Your task to perform on an android device: Open Google Image 0: 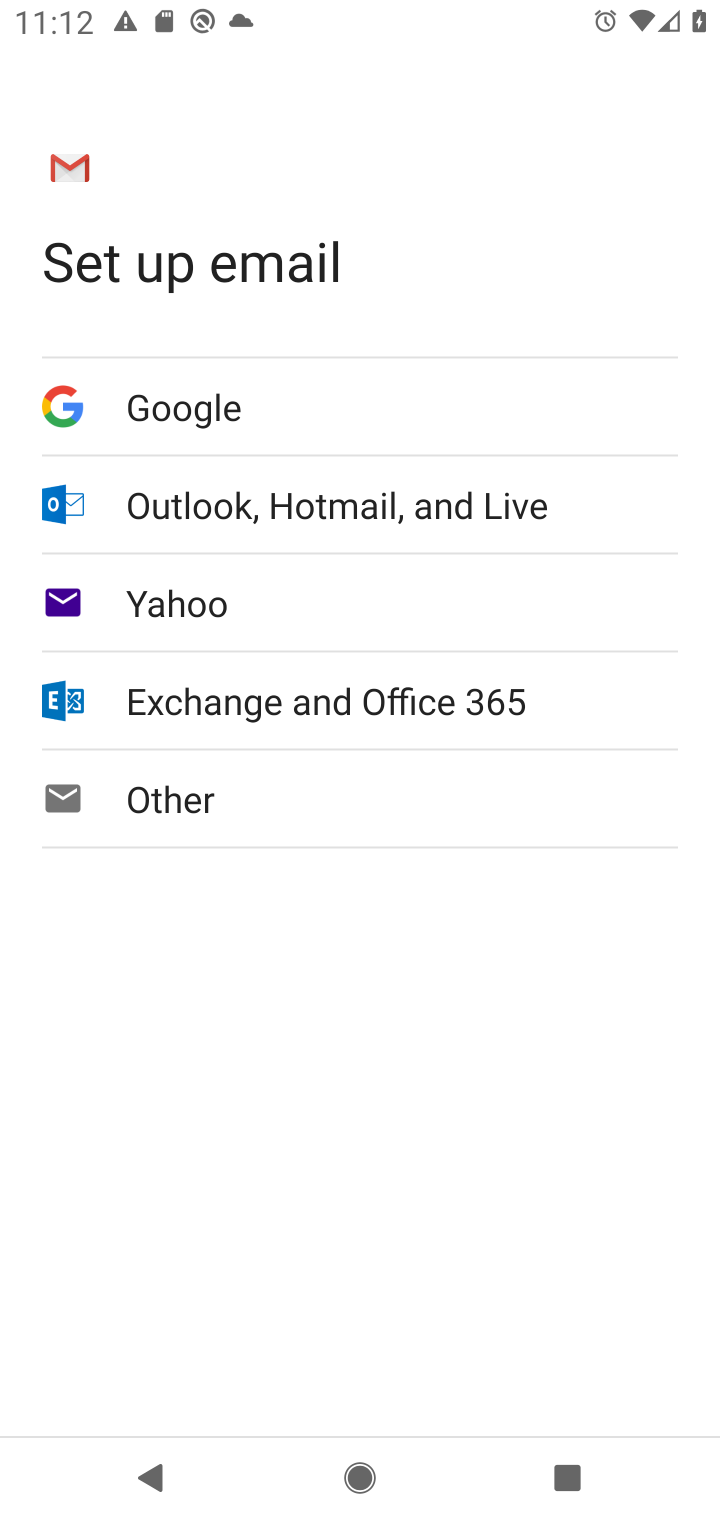
Step 0: press home button
Your task to perform on an android device: Open Google Image 1: 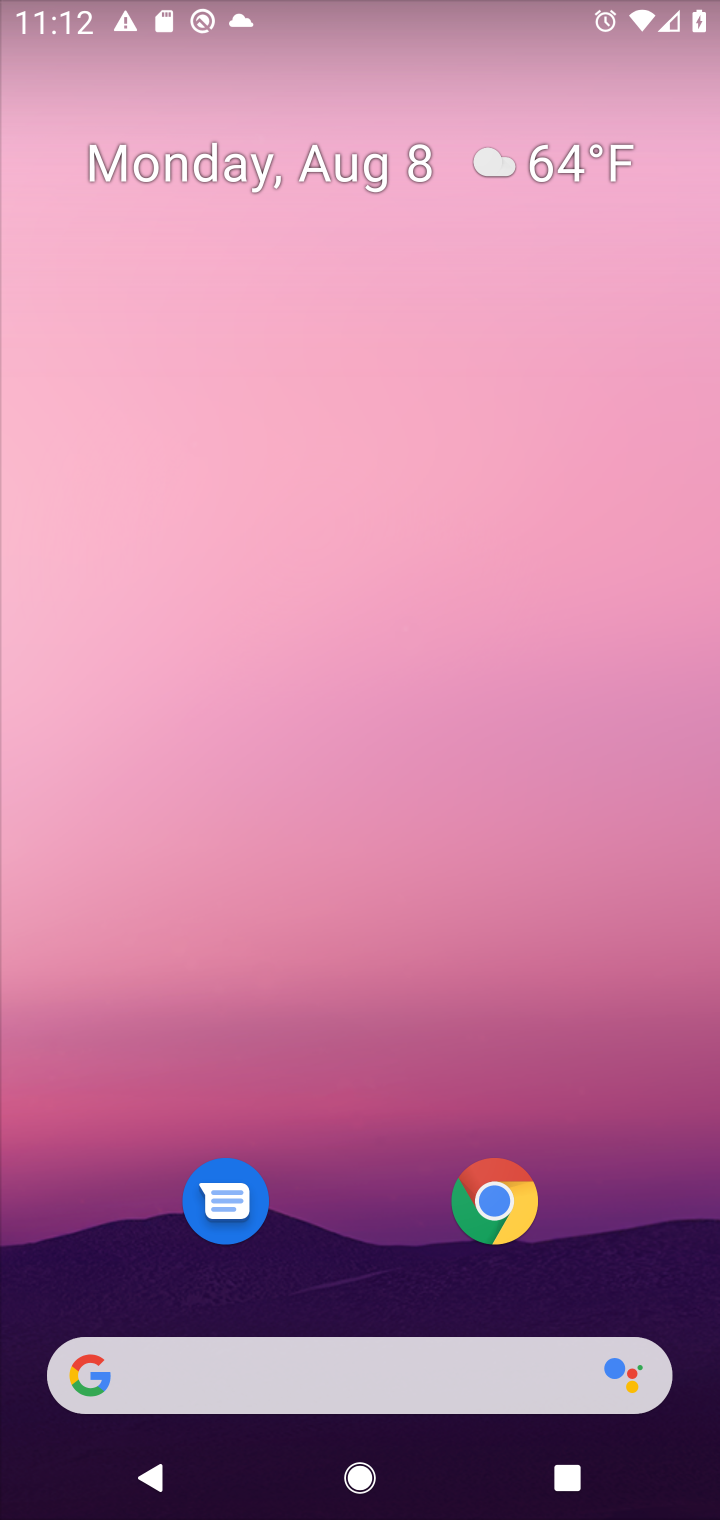
Step 1: drag from (369, 1155) to (449, 181)
Your task to perform on an android device: Open Google Image 2: 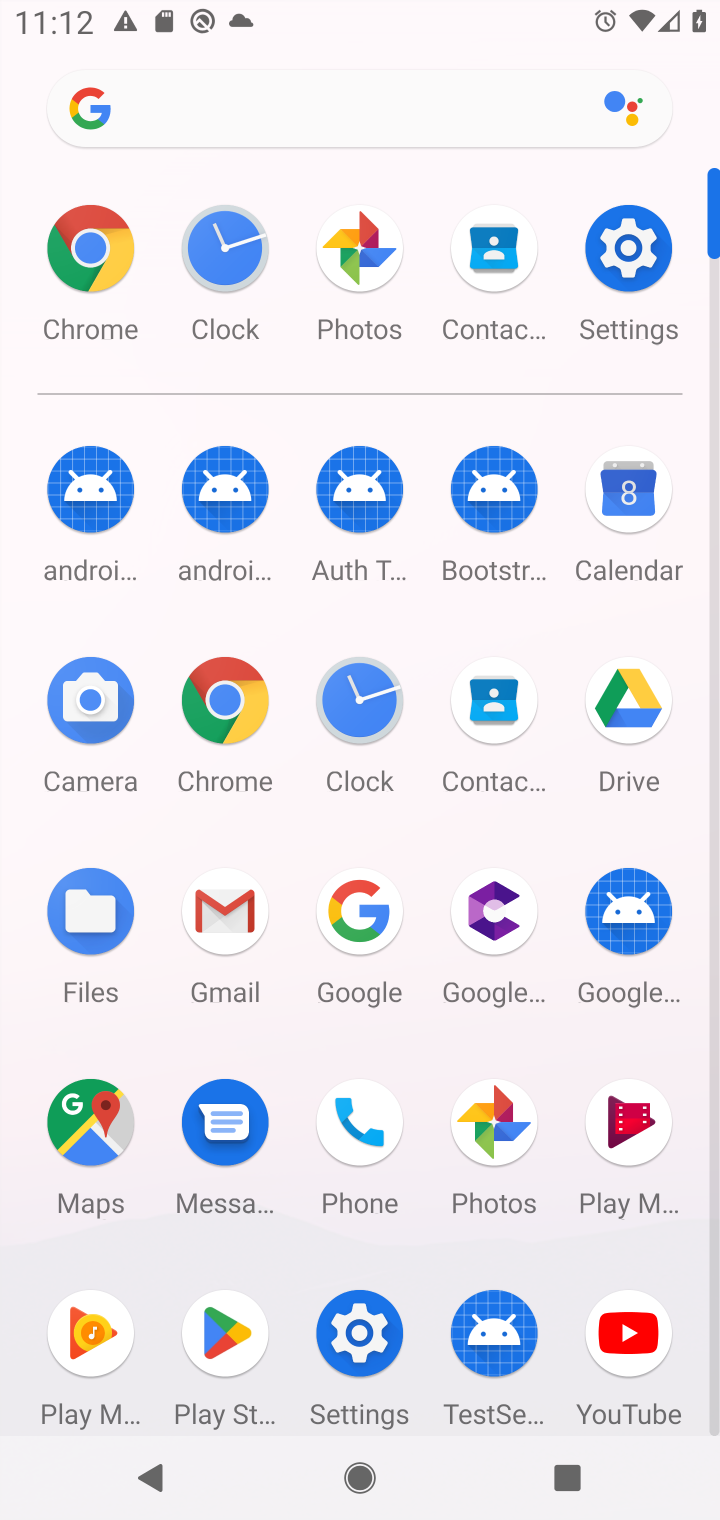
Step 2: click (368, 926)
Your task to perform on an android device: Open Google Image 3: 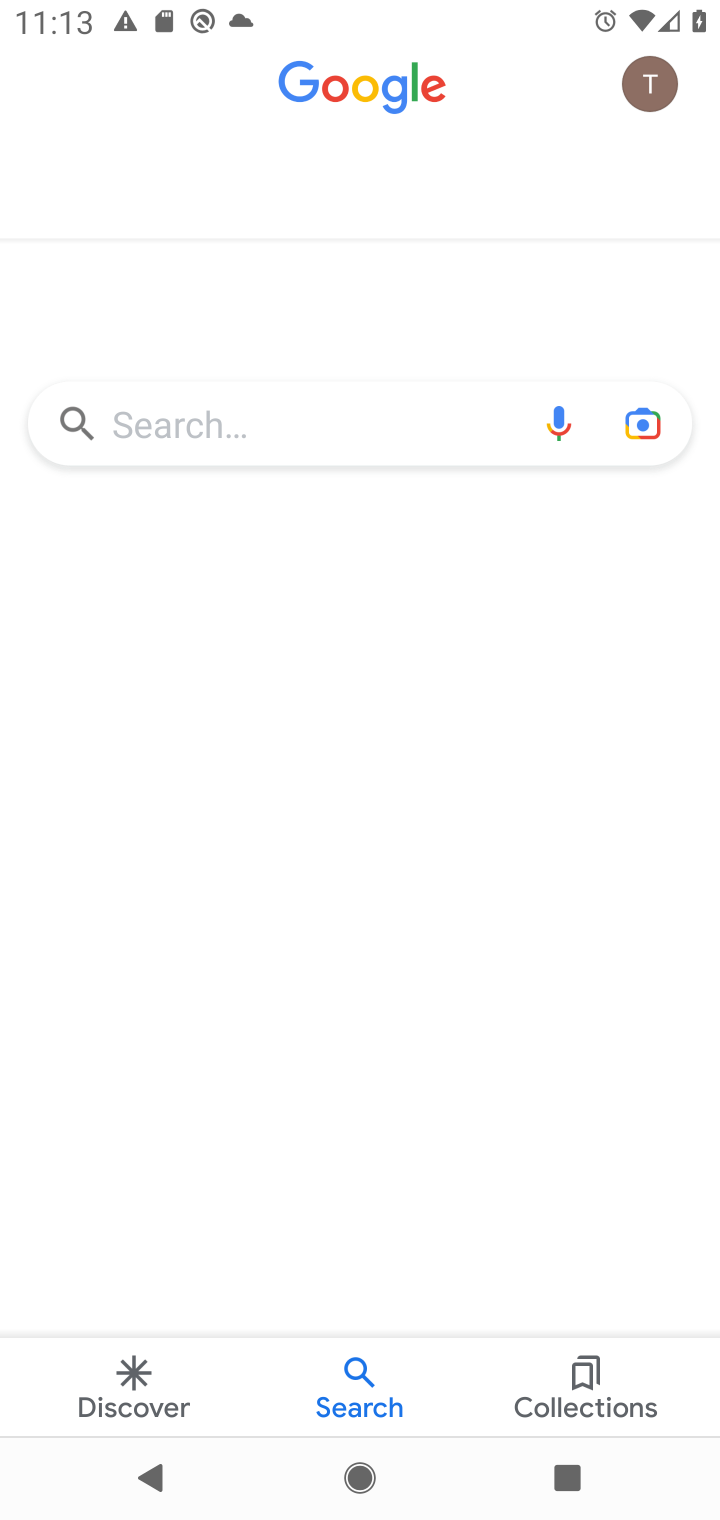
Step 3: press home button
Your task to perform on an android device: Open Google Image 4: 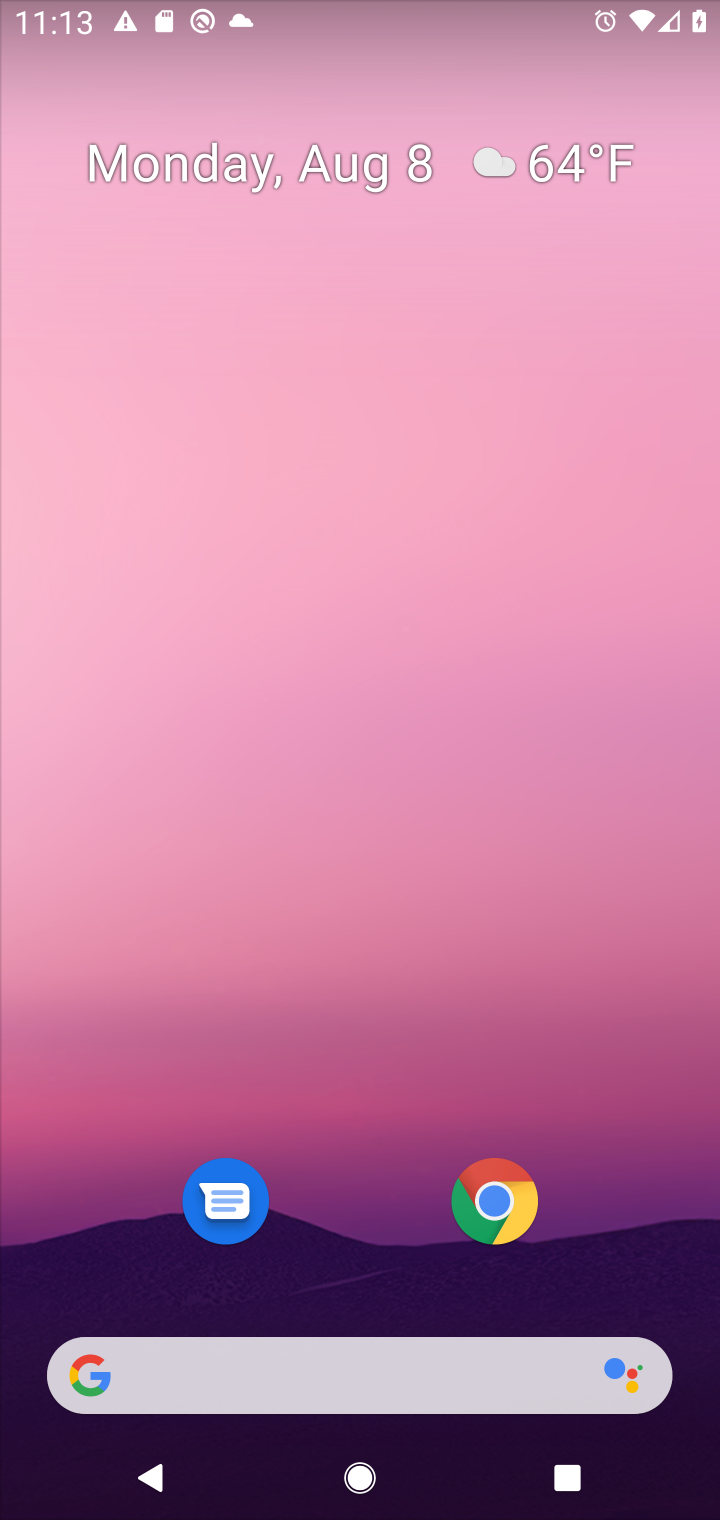
Step 4: drag from (642, 1010) to (658, 92)
Your task to perform on an android device: Open Google Image 5: 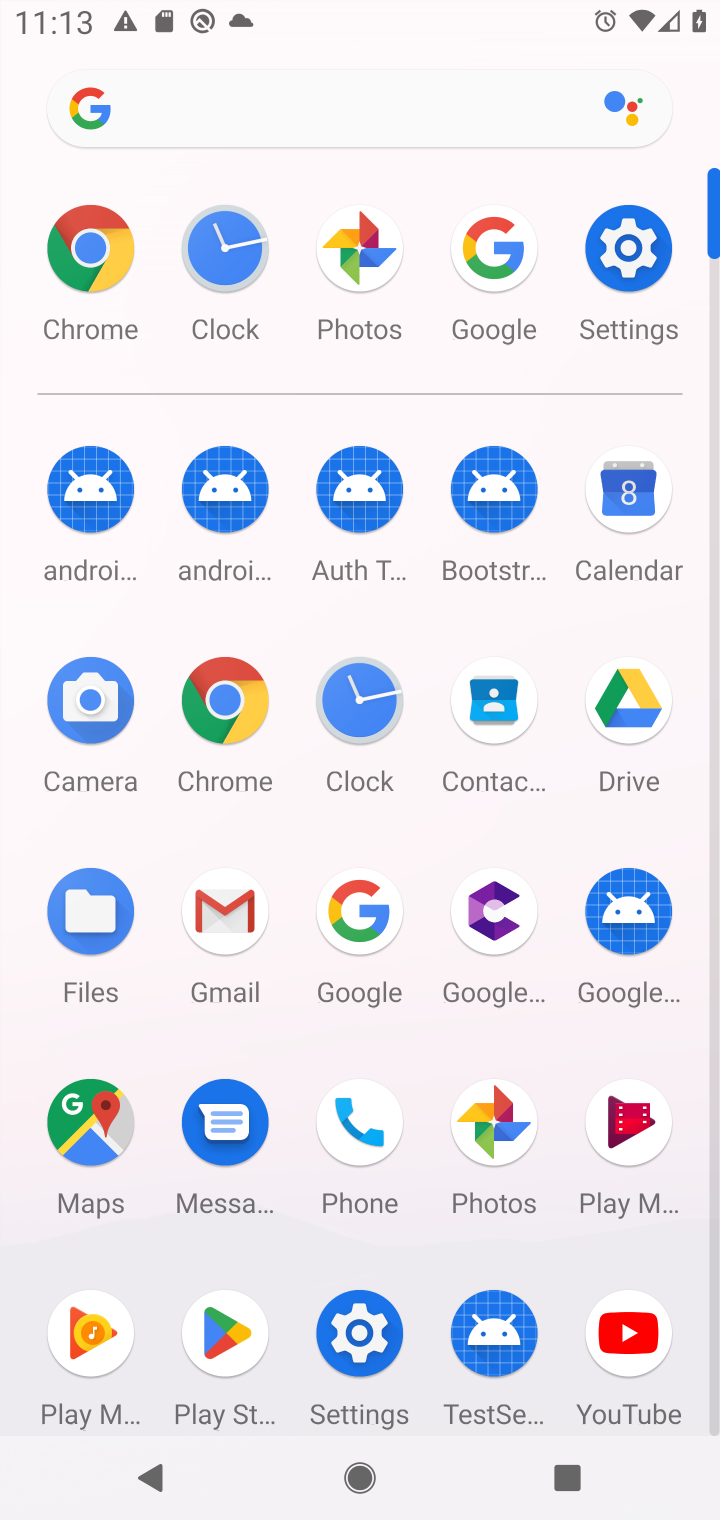
Step 5: click (348, 917)
Your task to perform on an android device: Open Google Image 6: 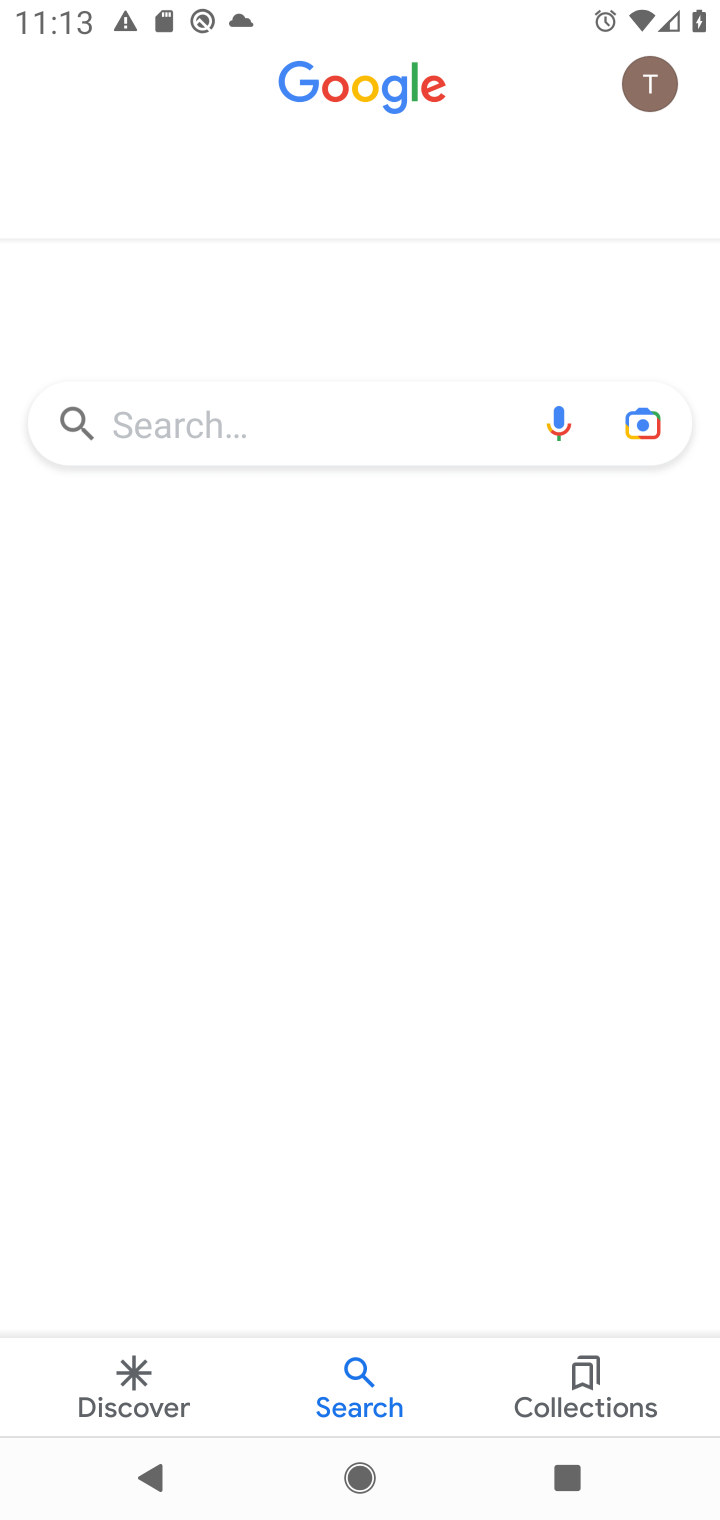
Step 6: task complete